Your task to perform on an android device: Go to Yahoo.com Image 0: 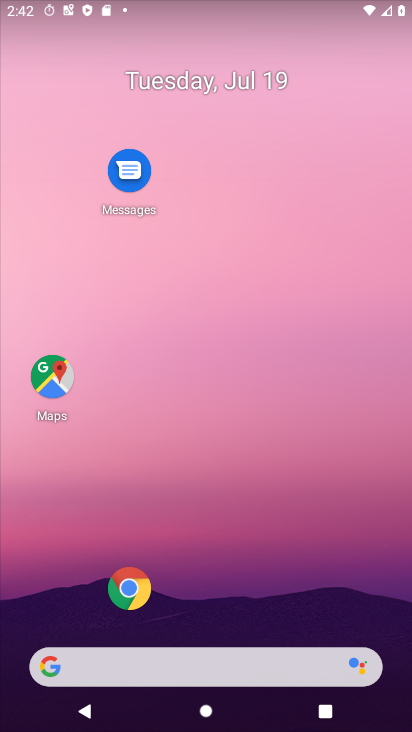
Step 0: drag from (97, 595) to (345, 17)
Your task to perform on an android device: Go to Yahoo.com Image 1: 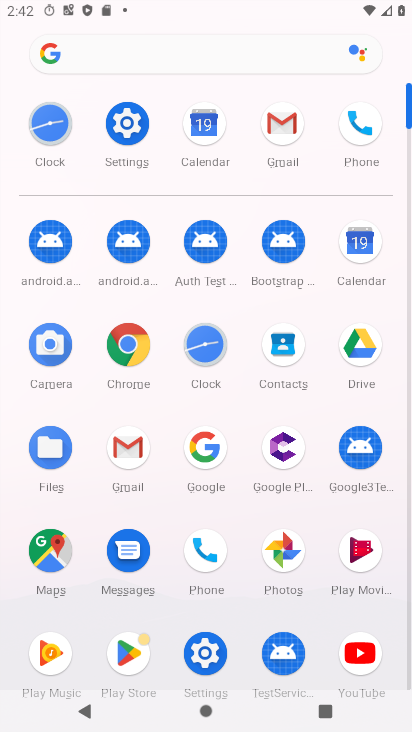
Step 1: click (111, 55)
Your task to perform on an android device: Go to Yahoo.com Image 2: 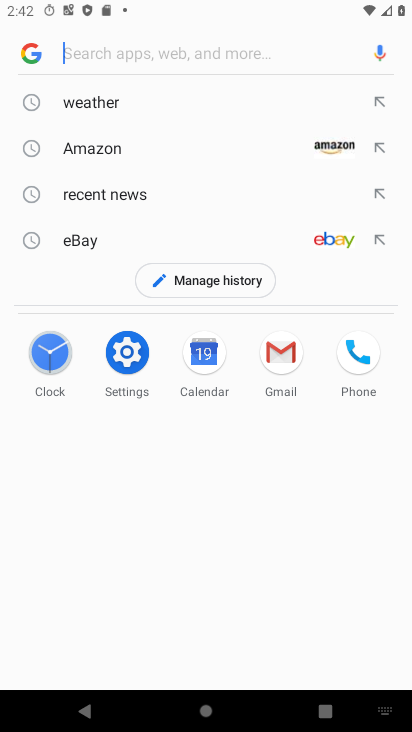
Step 2: type " Yahoo.com"
Your task to perform on an android device: Go to Yahoo.com Image 3: 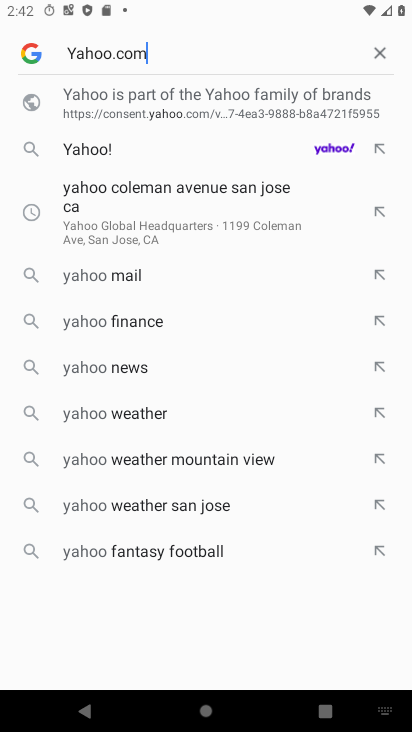
Step 3: type ""
Your task to perform on an android device: Go to Yahoo.com Image 4: 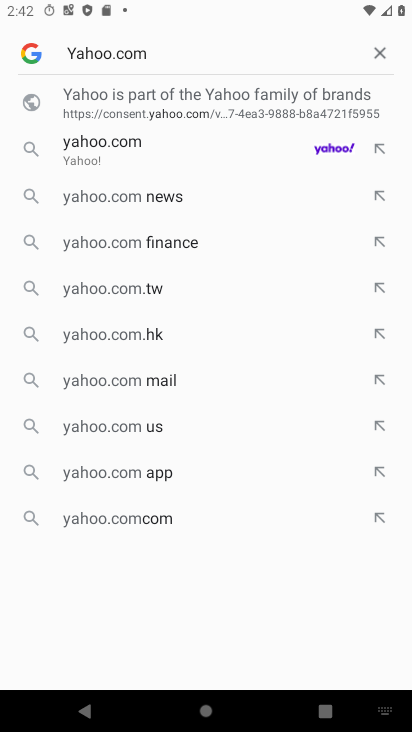
Step 4: click (127, 138)
Your task to perform on an android device: Go to Yahoo.com Image 5: 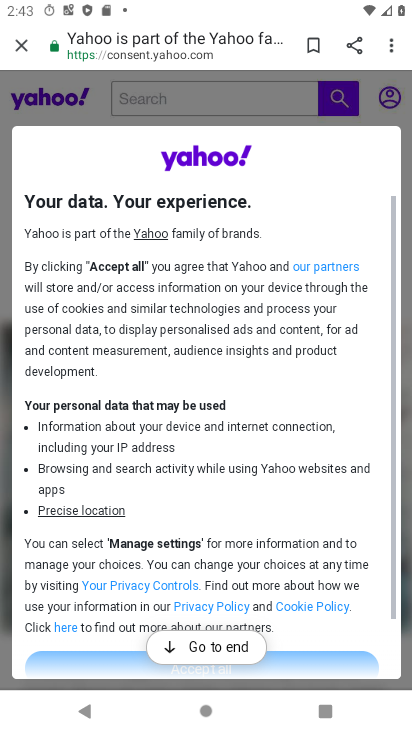
Step 5: task complete